Your task to perform on an android device: Open Maps and search for coffee Image 0: 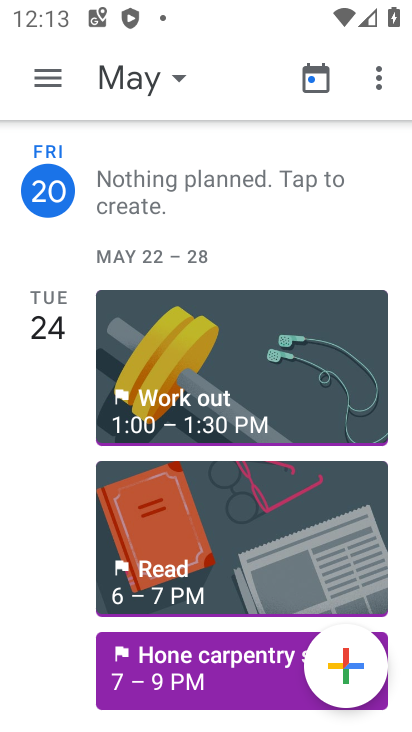
Step 0: press home button
Your task to perform on an android device: Open Maps and search for coffee Image 1: 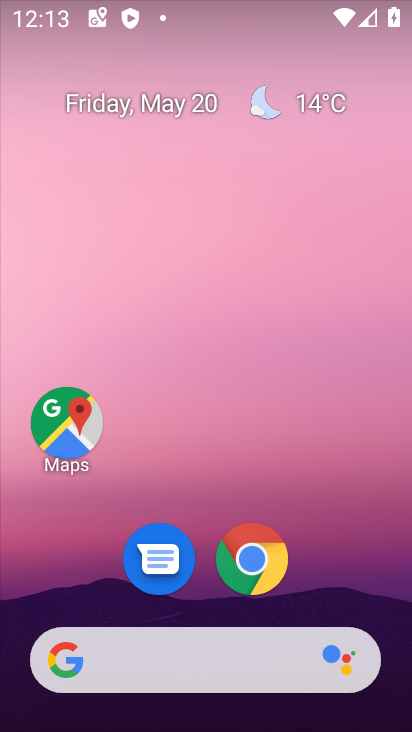
Step 1: click (76, 434)
Your task to perform on an android device: Open Maps and search for coffee Image 2: 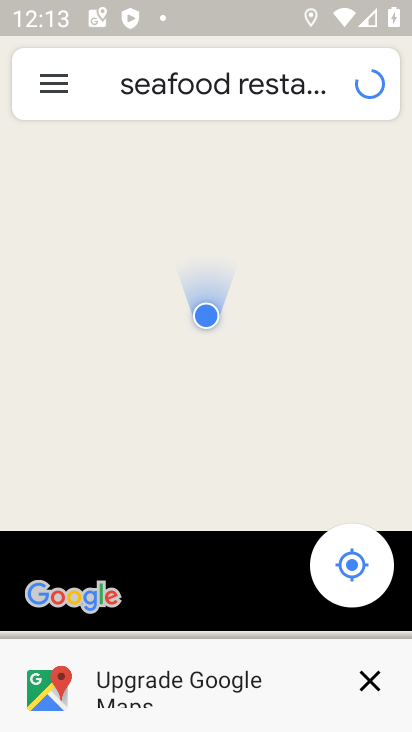
Step 2: click (152, 112)
Your task to perform on an android device: Open Maps and search for coffee Image 3: 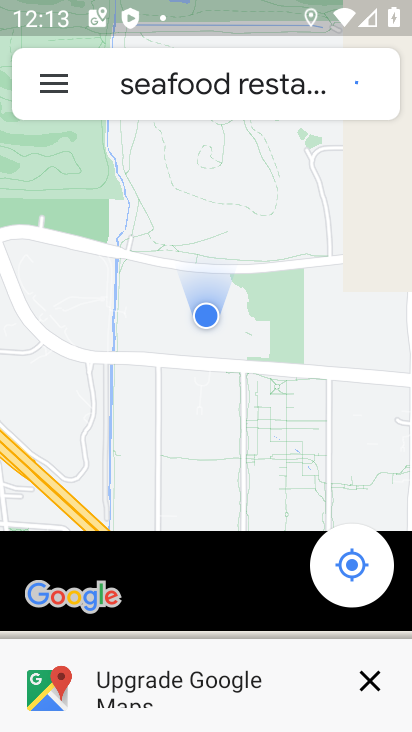
Step 3: click (309, 98)
Your task to perform on an android device: Open Maps and search for coffee Image 4: 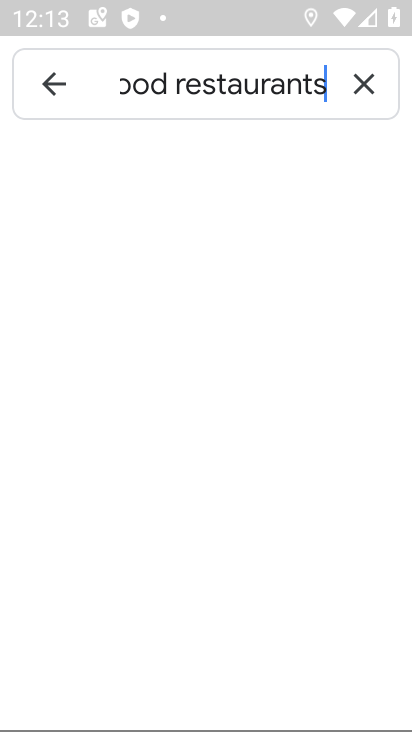
Step 4: click (366, 87)
Your task to perform on an android device: Open Maps and search for coffee Image 5: 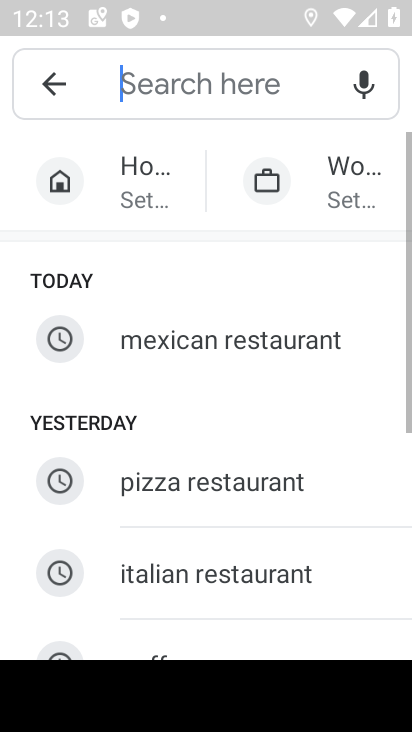
Step 5: click (289, 100)
Your task to perform on an android device: Open Maps and search for coffee Image 6: 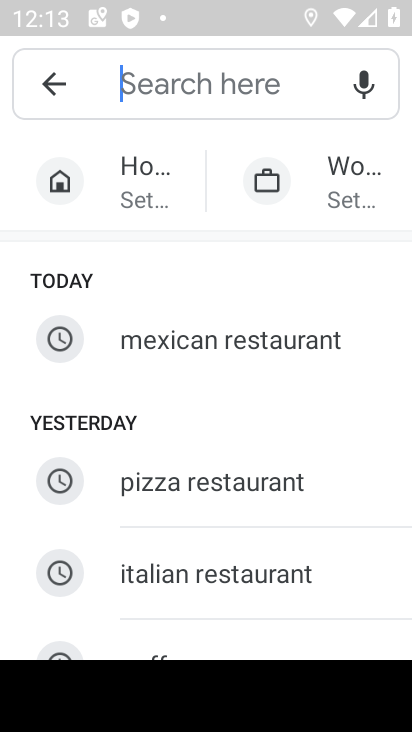
Step 6: type "coffee"
Your task to perform on an android device: Open Maps and search for coffee Image 7: 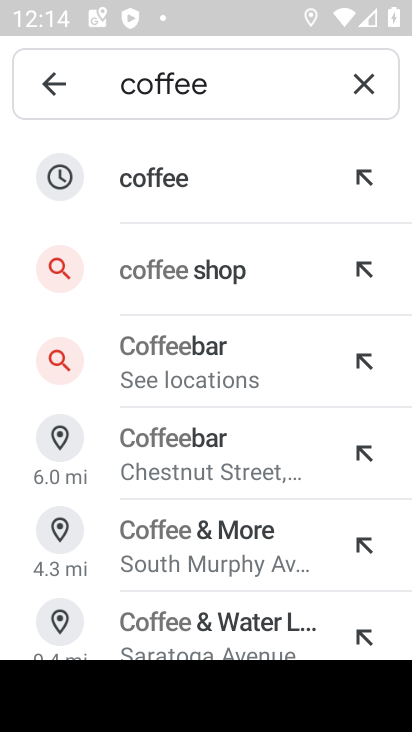
Step 7: click (258, 179)
Your task to perform on an android device: Open Maps and search for coffee Image 8: 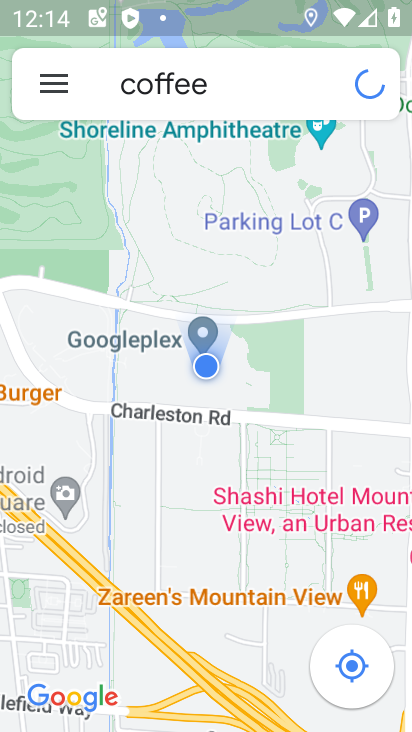
Step 8: task complete